Your task to perform on an android device: allow notifications from all sites in the chrome app Image 0: 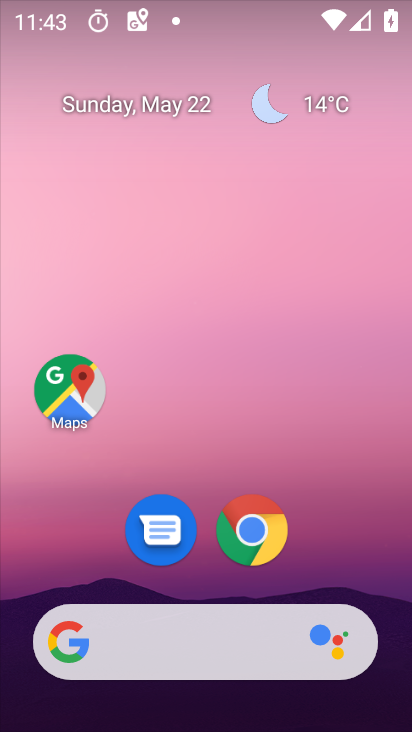
Step 0: click (264, 514)
Your task to perform on an android device: allow notifications from all sites in the chrome app Image 1: 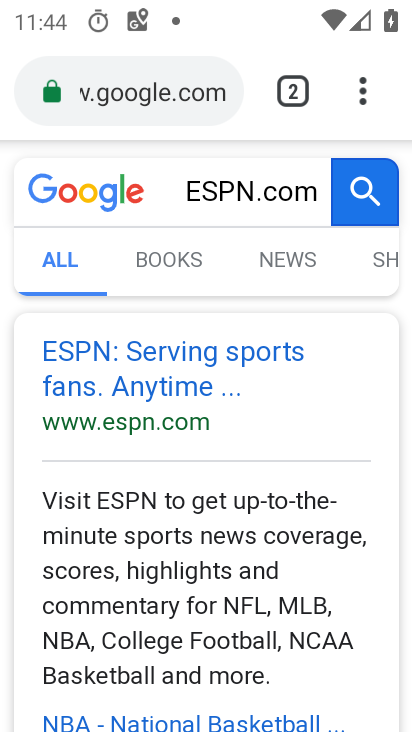
Step 1: click (357, 90)
Your task to perform on an android device: allow notifications from all sites in the chrome app Image 2: 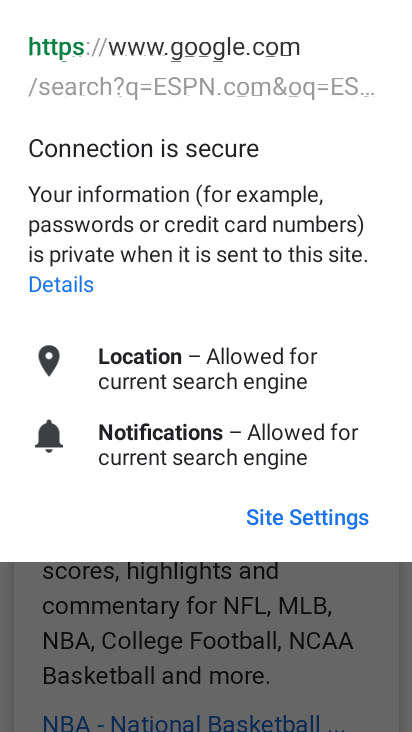
Step 2: press back button
Your task to perform on an android device: allow notifications from all sites in the chrome app Image 3: 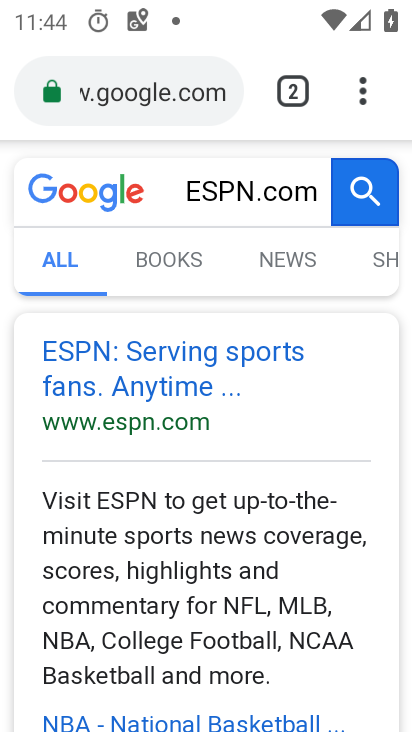
Step 3: click (364, 88)
Your task to perform on an android device: allow notifications from all sites in the chrome app Image 4: 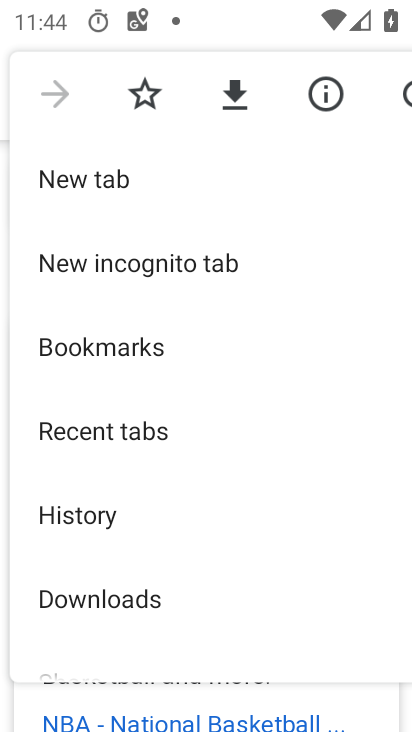
Step 4: drag from (287, 643) to (284, 362)
Your task to perform on an android device: allow notifications from all sites in the chrome app Image 5: 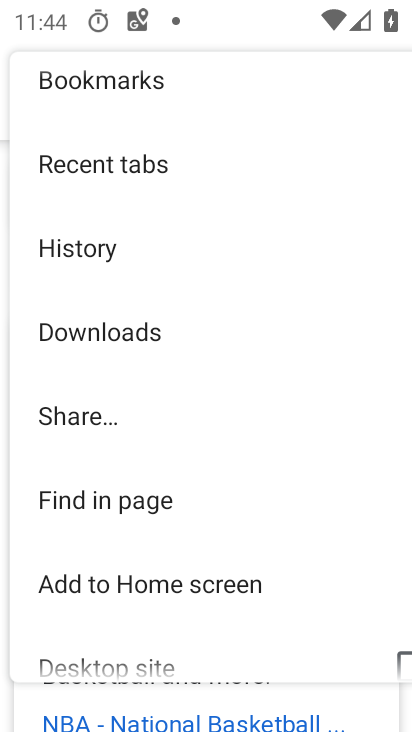
Step 5: click (321, 440)
Your task to perform on an android device: allow notifications from all sites in the chrome app Image 6: 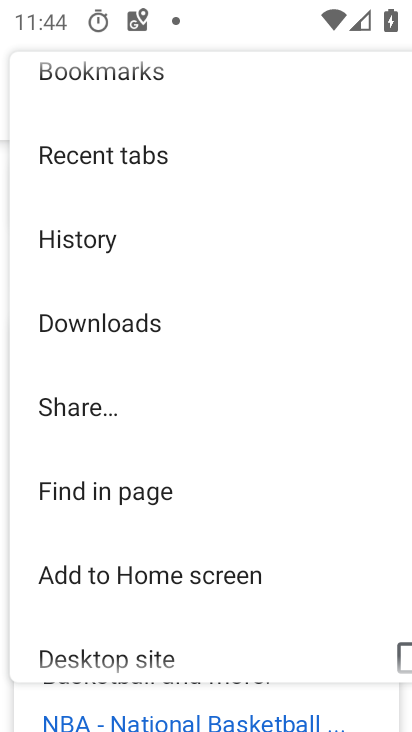
Step 6: drag from (271, 641) to (293, 414)
Your task to perform on an android device: allow notifications from all sites in the chrome app Image 7: 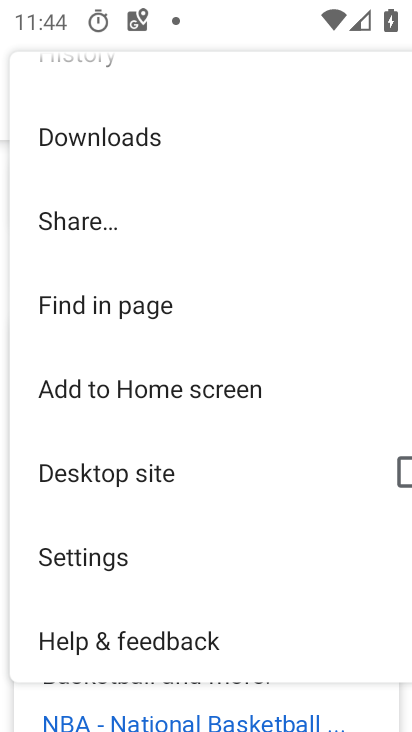
Step 7: click (102, 559)
Your task to perform on an android device: allow notifications from all sites in the chrome app Image 8: 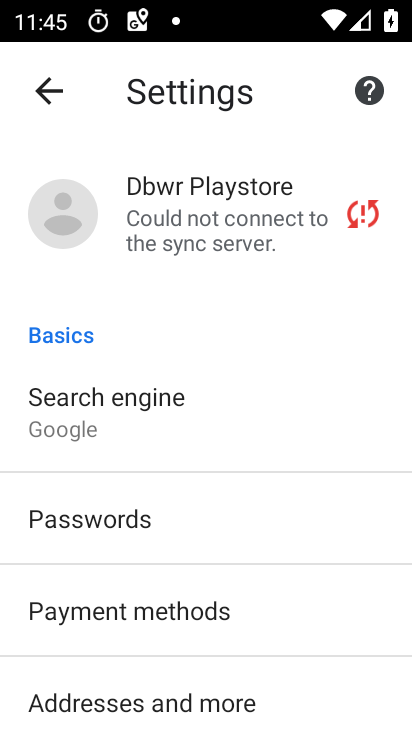
Step 8: drag from (332, 646) to (333, 397)
Your task to perform on an android device: allow notifications from all sites in the chrome app Image 9: 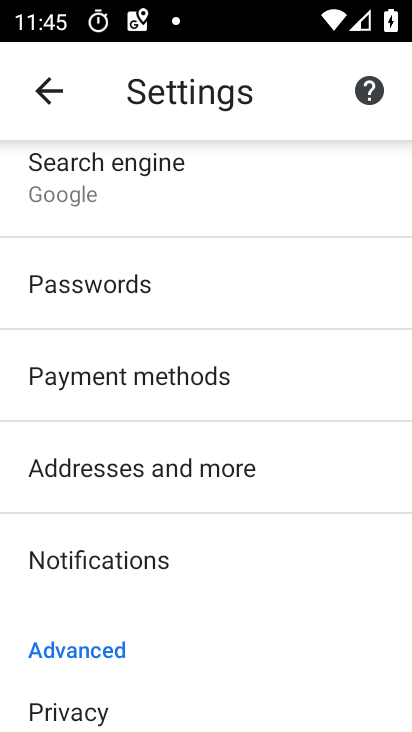
Step 9: drag from (292, 694) to (317, 350)
Your task to perform on an android device: allow notifications from all sites in the chrome app Image 10: 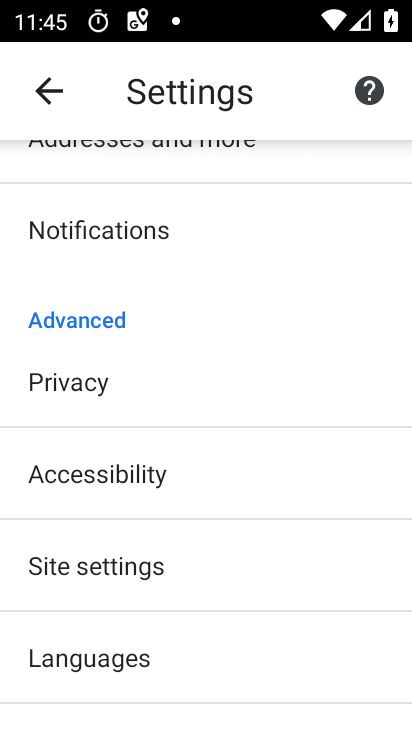
Step 10: drag from (315, 687) to (312, 380)
Your task to perform on an android device: allow notifications from all sites in the chrome app Image 11: 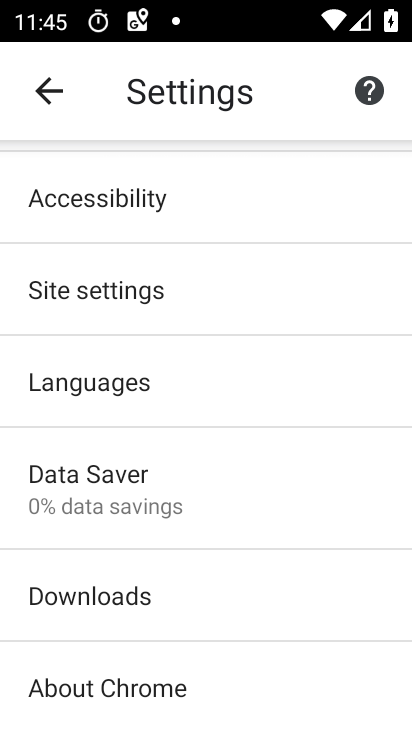
Step 11: click (154, 284)
Your task to perform on an android device: allow notifications from all sites in the chrome app Image 12: 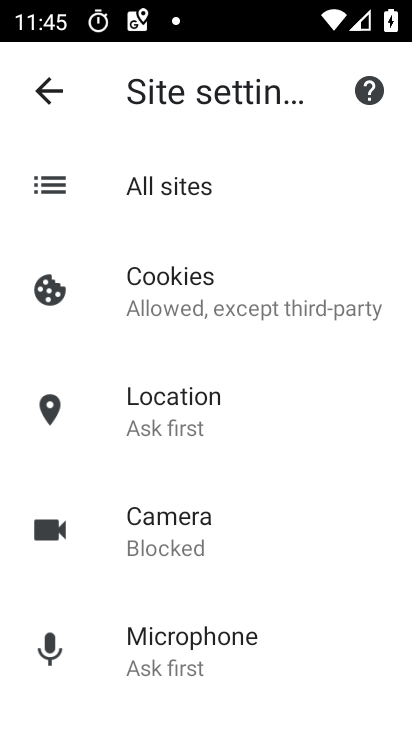
Step 12: drag from (289, 663) to (310, 355)
Your task to perform on an android device: allow notifications from all sites in the chrome app Image 13: 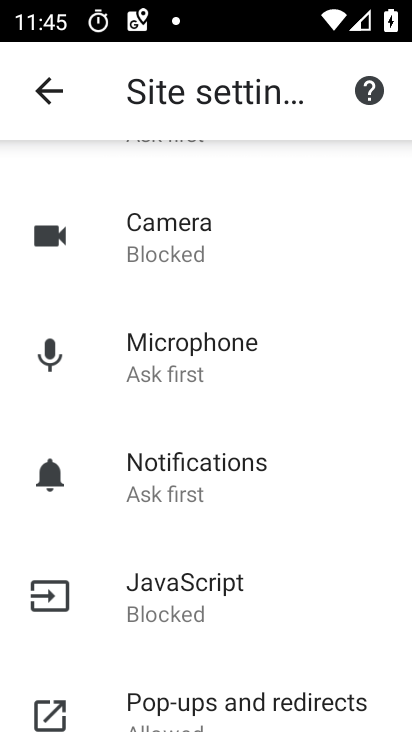
Step 13: click (203, 479)
Your task to perform on an android device: allow notifications from all sites in the chrome app Image 14: 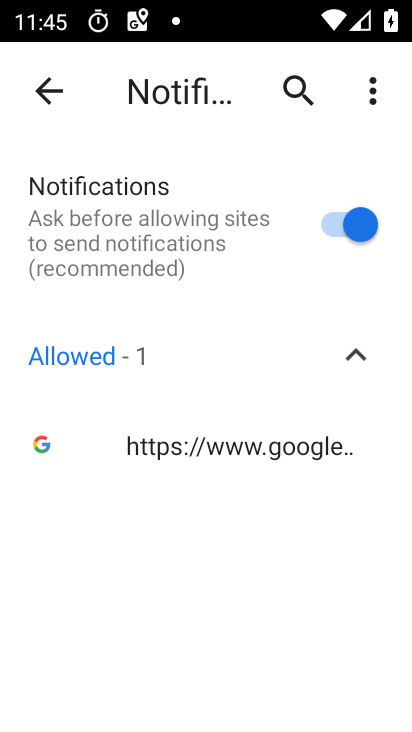
Step 14: task complete